Your task to perform on an android device: Is it going to rain tomorrow? Image 0: 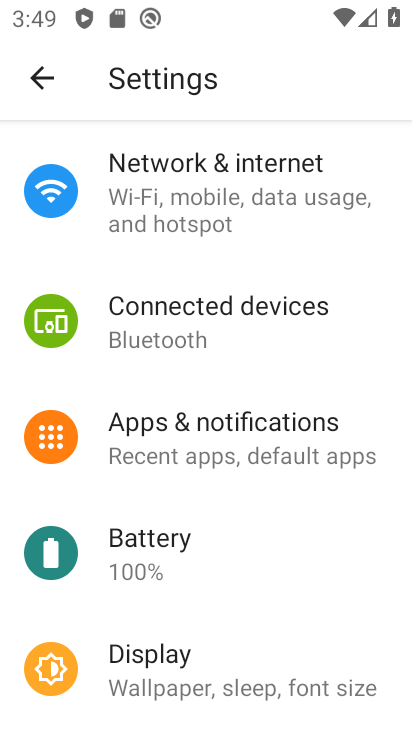
Step 0: press home button
Your task to perform on an android device: Is it going to rain tomorrow? Image 1: 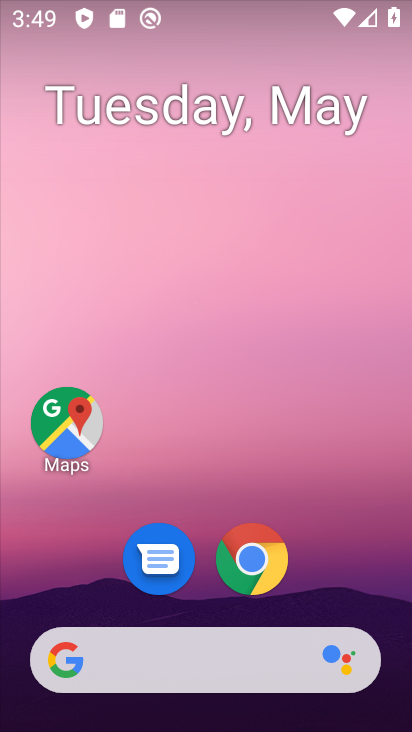
Step 1: click (283, 655)
Your task to perform on an android device: Is it going to rain tomorrow? Image 2: 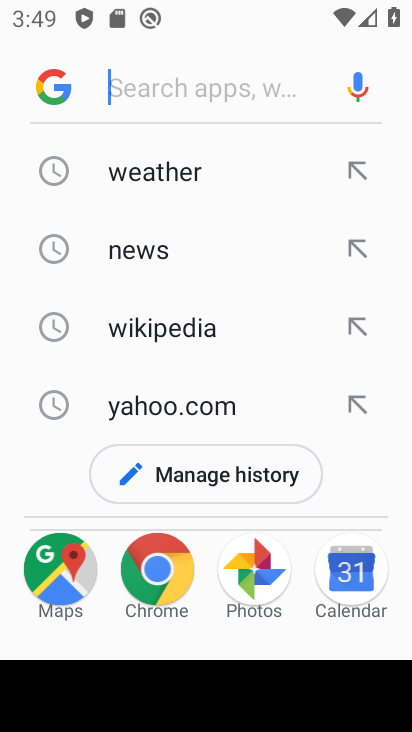
Step 2: click (168, 105)
Your task to perform on an android device: Is it going to rain tomorrow? Image 3: 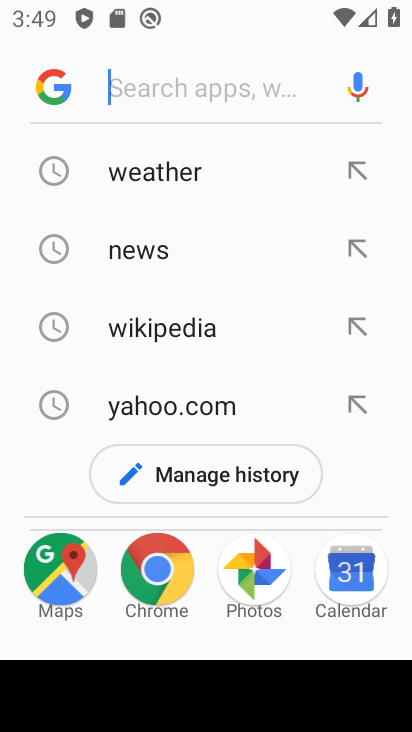
Step 3: type "Is it going to rain tomorrow?"
Your task to perform on an android device: Is it going to rain tomorrow? Image 4: 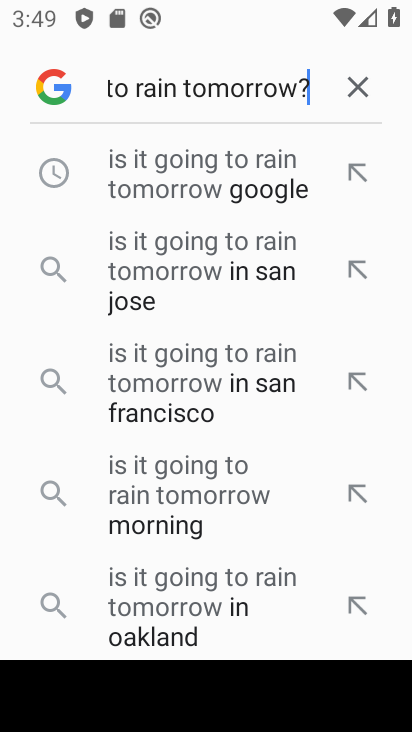
Step 4: click (208, 177)
Your task to perform on an android device: Is it going to rain tomorrow? Image 5: 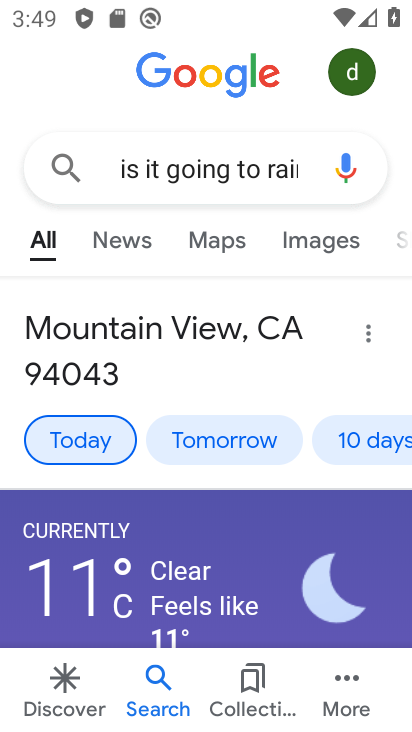
Step 5: task complete